Your task to perform on an android device: See recent photos Image 0: 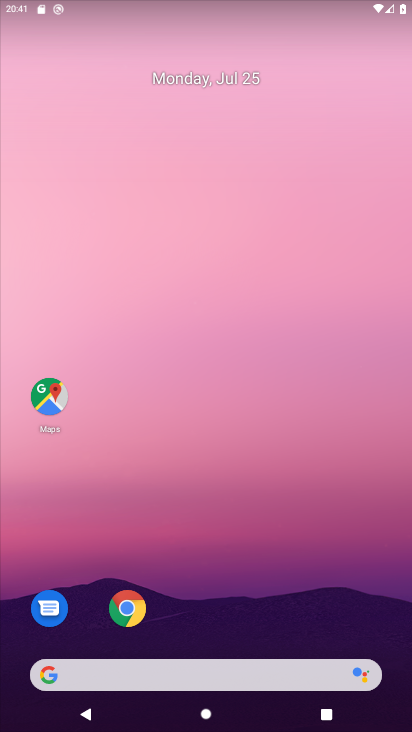
Step 0: drag from (302, 612) to (220, 111)
Your task to perform on an android device: See recent photos Image 1: 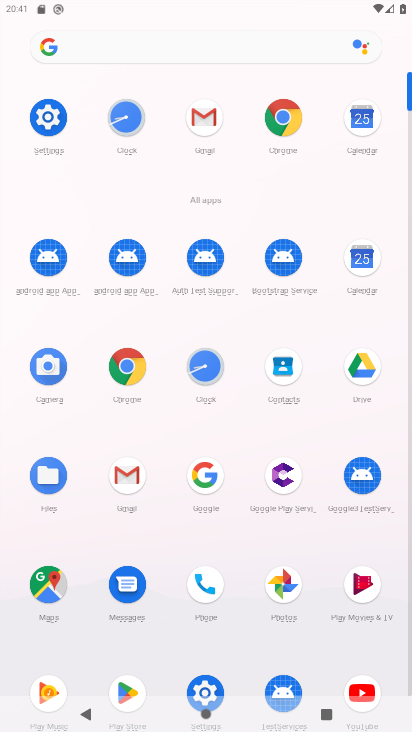
Step 1: click (284, 596)
Your task to perform on an android device: See recent photos Image 2: 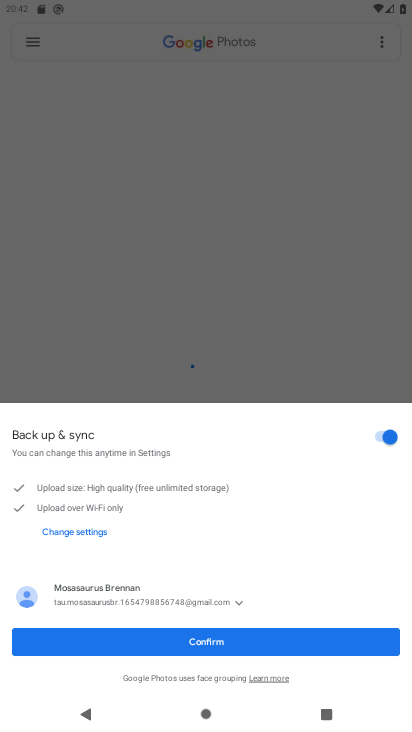
Step 2: click (276, 642)
Your task to perform on an android device: See recent photos Image 3: 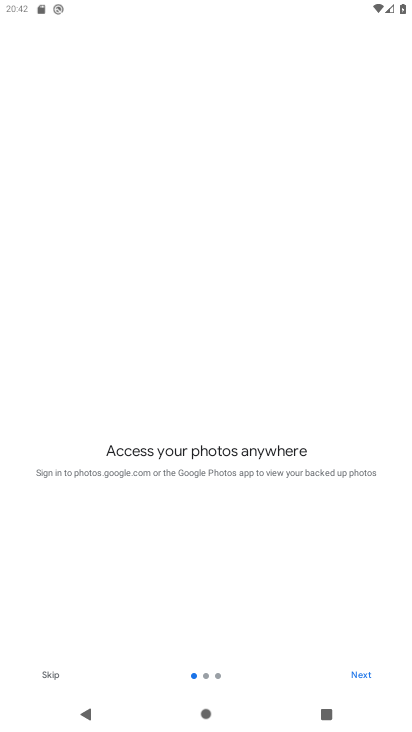
Step 3: click (47, 675)
Your task to perform on an android device: See recent photos Image 4: 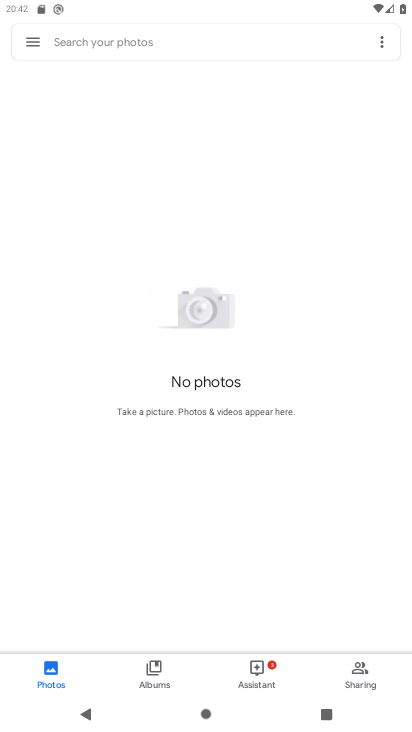
Step 4: task complete